Your task to perform on an android device: Add "razer nari" to the cart on costco, then select checkout. Image 0: 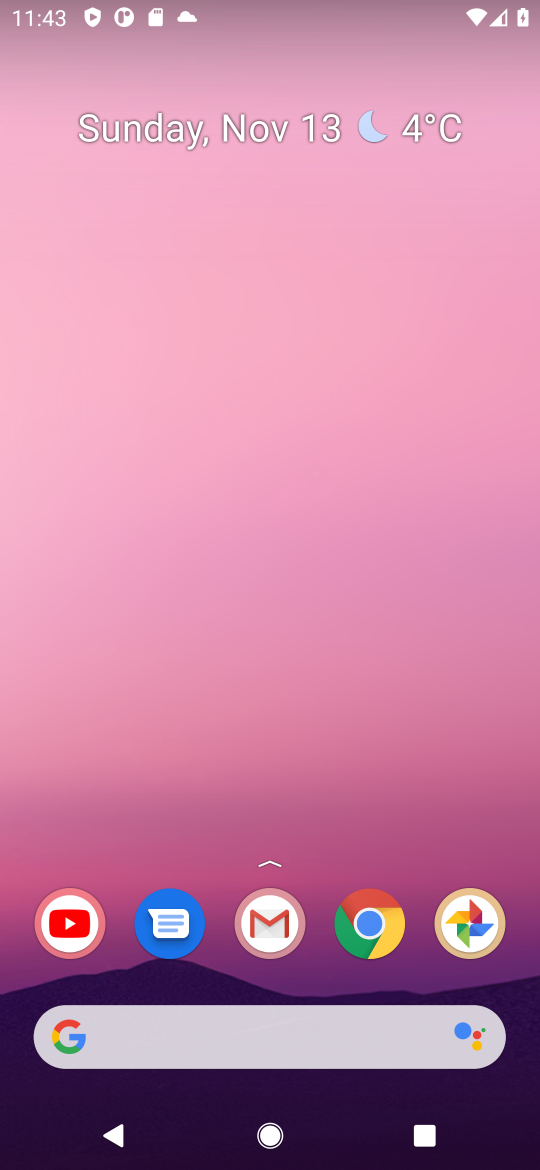
Step 0: click (374, 927)
Your task to perform on an android device: Add "razer nari" to the cart on costco, then select checkout. Image 1: 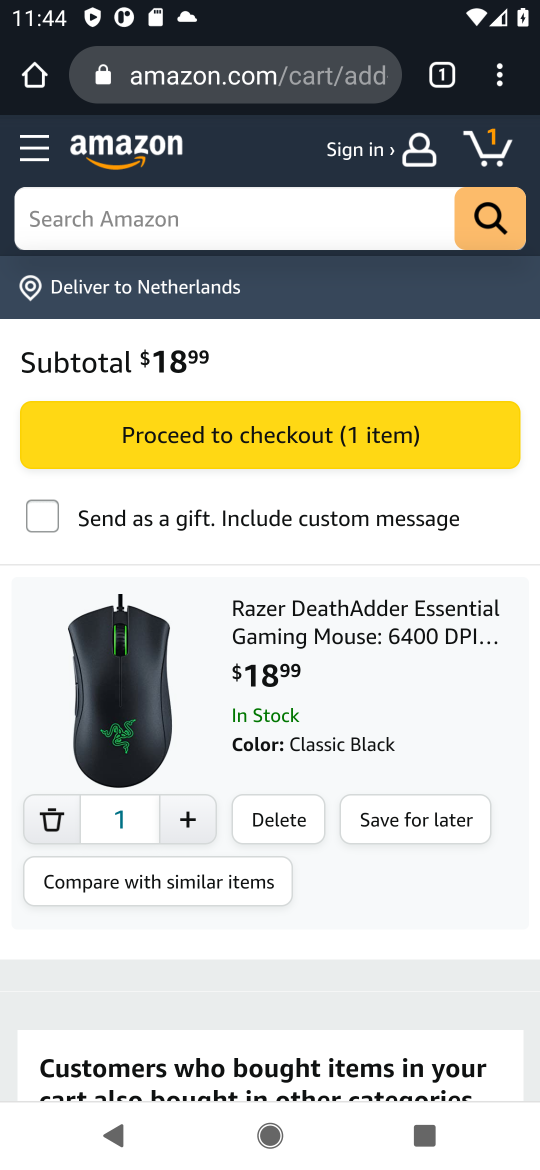
Step 1: click (293, 82)
Your task to perform on an android device: Add "razer nari" to the cart on costco, then select checkout. Image 2: 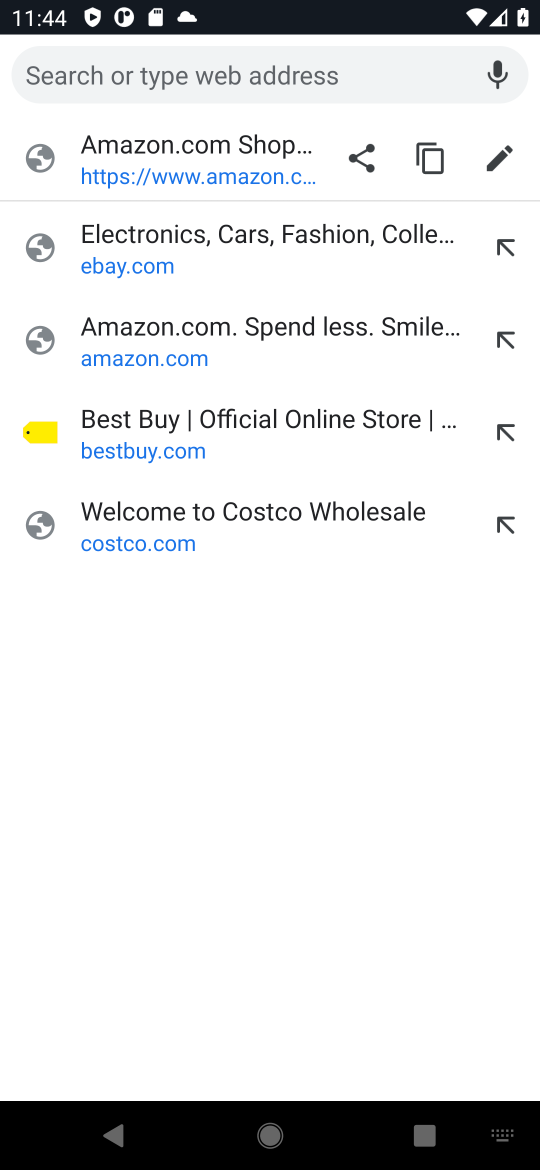
Step 2: click (225, 506)
Your task to perform on an android device: Add "razer nari" to the cart on costco, then select checkout. Image 3: 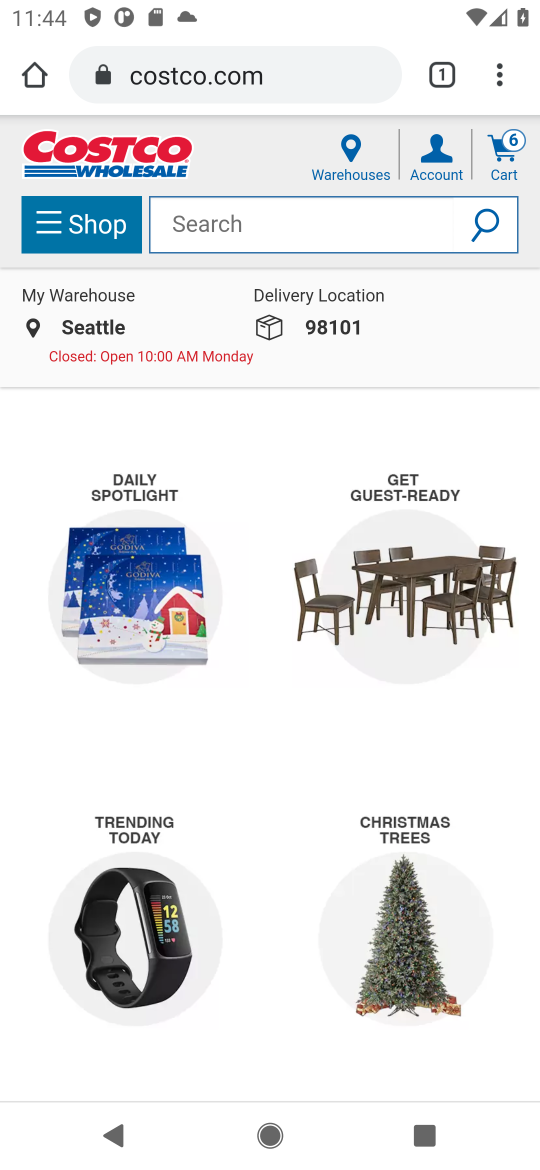
Step 3: click (322, 224)
Your task to perform on an android device: Add "razer nari" to the cart on costco, then select checkout. Image 4: 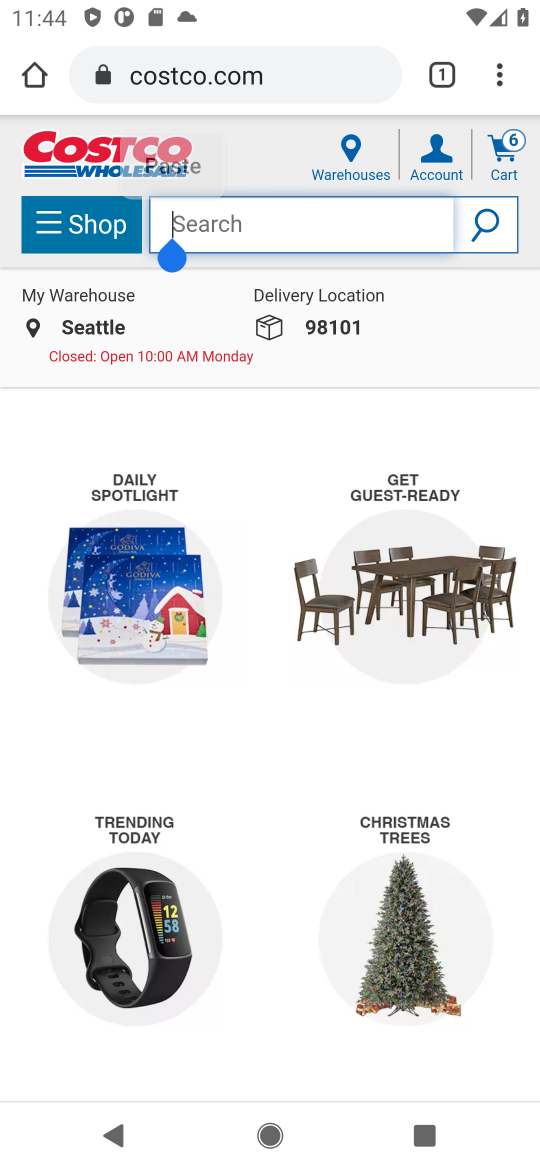
Step 4: type "razer nari"
Your task to perform on an android device: Add "razer nari" to the cart on costco, then select checkout. Image 5: 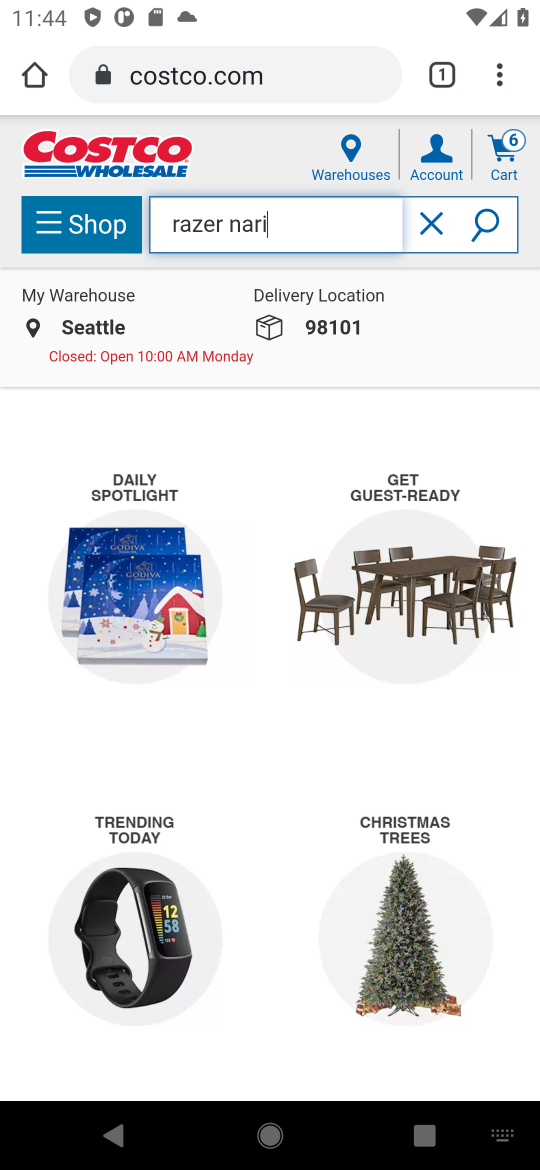
Step 5: press enter
Your task to perform on an android device: Add "razer nari" to the cart on costco, then select checkout. Image 6: 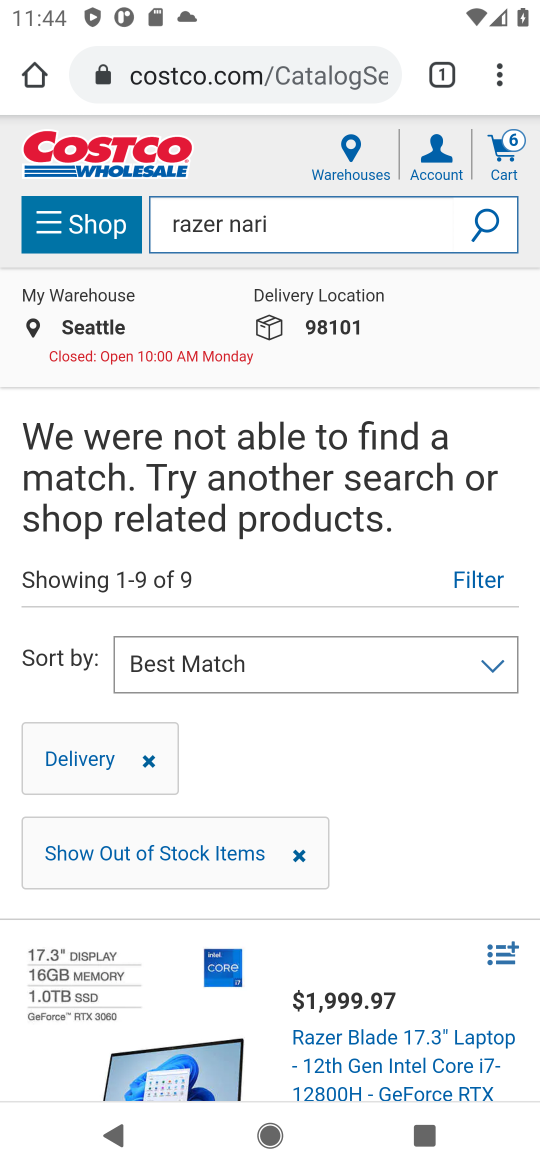
Step 6: task complete